Your task to perform on an android device: Open Reddit.com Image 0: 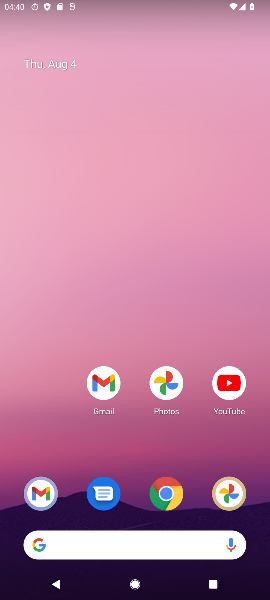
Step 0: click (166, 497)
Your task to perform on an android device: Open Reddit.com Image 1: 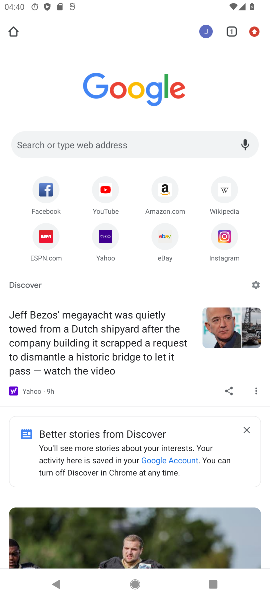
Step 1: click (43, 145)
Your task to perform on an android device: Open Reddit.com Image 2: 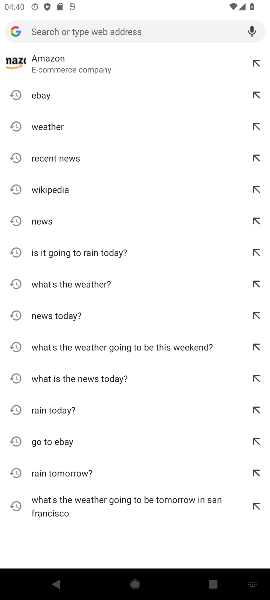
Step 2: type " Reddit.com"
Your task to perform on an android device: Open Reddit.com Image 3: 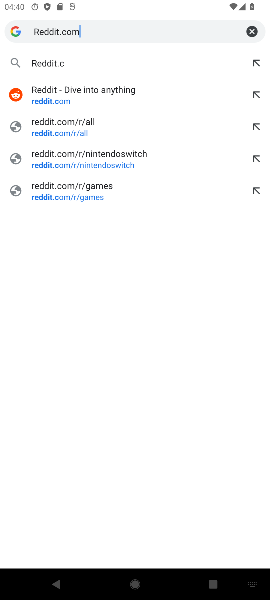
Step 3: type ""
Your task to perform on an android device: Open Reddit.com Image 4: 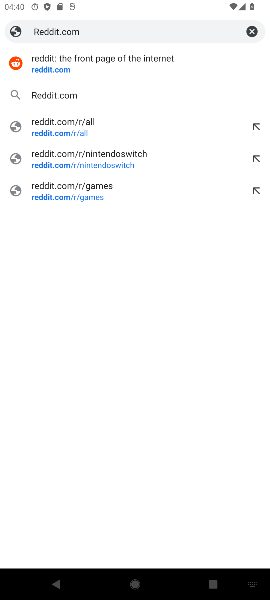
Step 4: click (55, 92)
Your task to perform on an android device: Open Reddit.com Image 5: 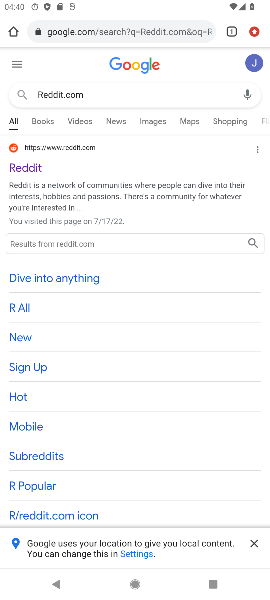
Step 5: task complete